Your task to perform on an android device: turn off airplane mode Image 0: 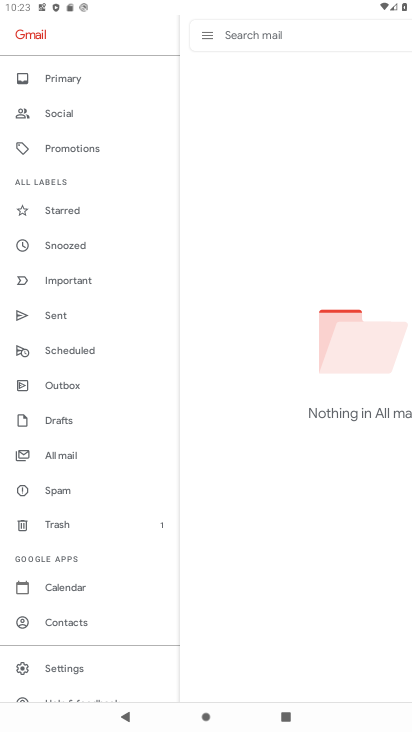
Step 0: press home button
Your task to perform on an android device: turn off airplane mode Image 1: 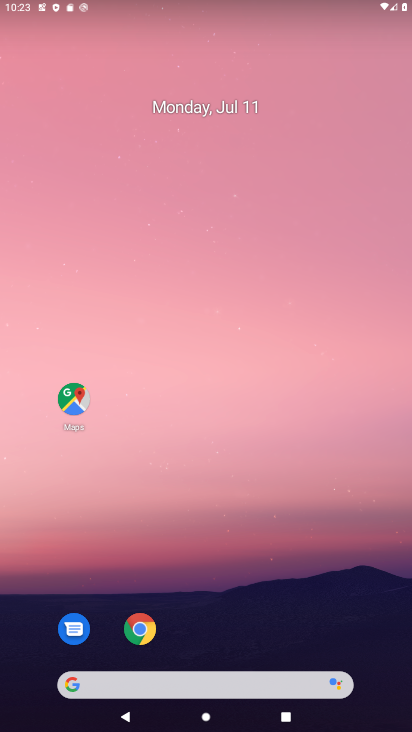
Step 1: drag from (211, 633) to (218, 157)
Your task to perform on an android device: turn off airplane mode Image 2: 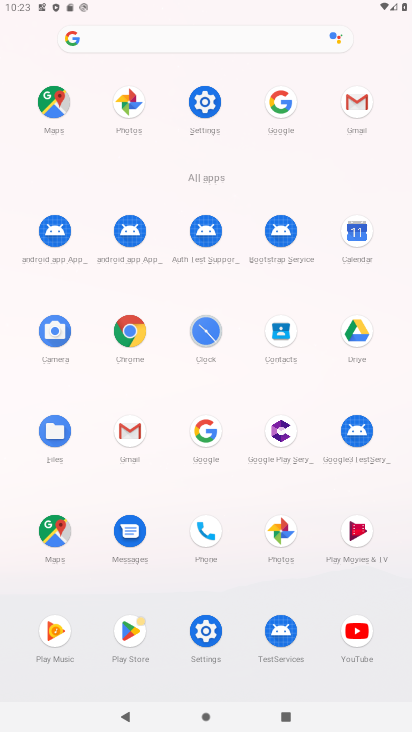
Step 2: click (224, 99)
Your task to perform on an android device: turn off airplane mode Image 3: 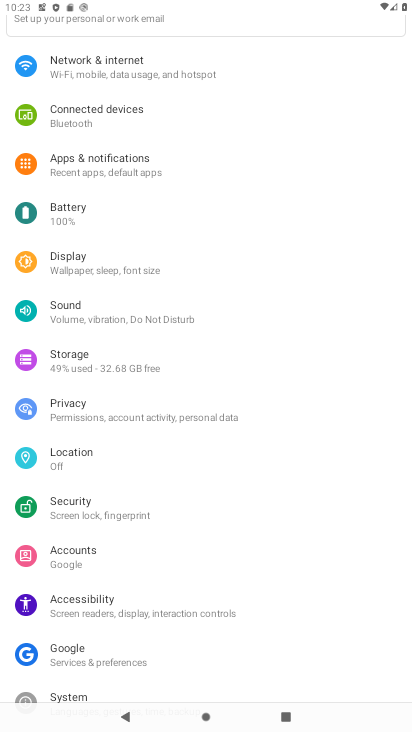
Step 3: click (180, 82)
Your task to perform on an android device: turn off airplane mode Image 4: 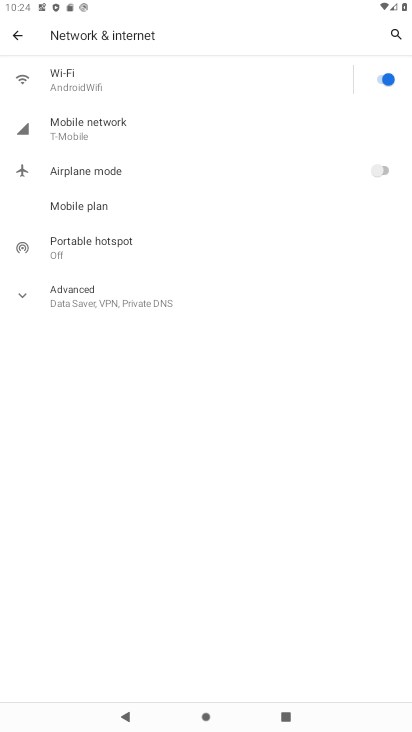
Step 4: task complete